Your task to perform on an android device: turn off smart reply in the gmail app Image 0: 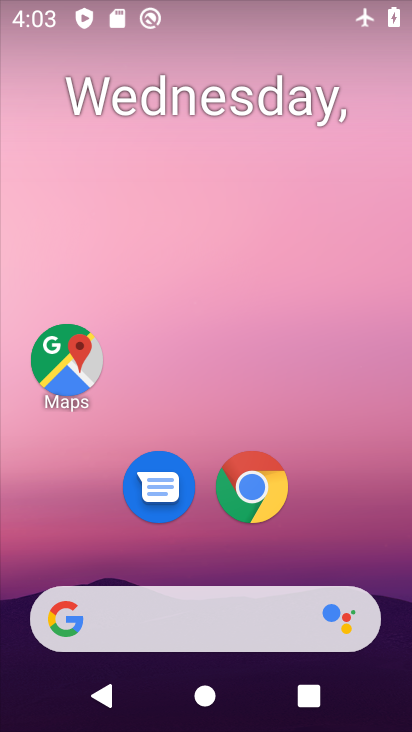
Step 0: press home button
Your task to perform on an android device: turn off smart reply in the gmail app Image 1: 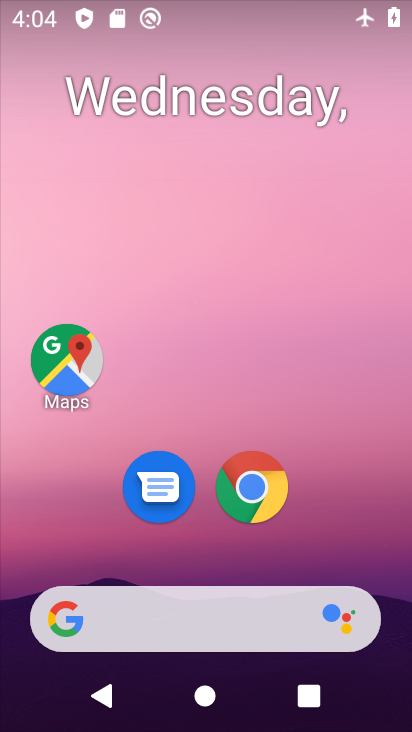
Step 1: press back button
Your task to perform on an android device: turn off smart reply in the gmail app Image 2: 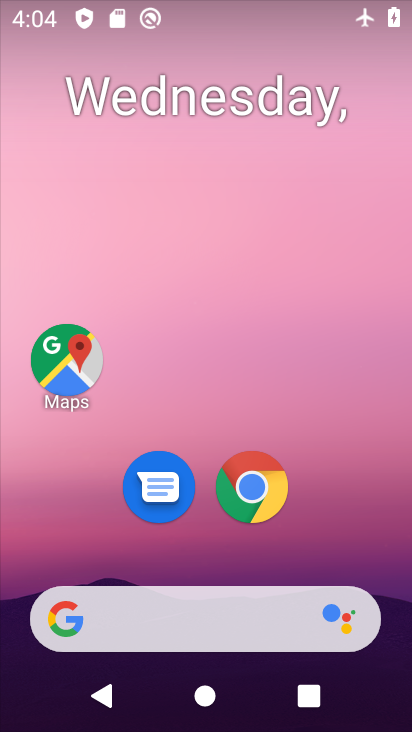
Step 2: drag from (205, 544) to (241, 35)
Your task to perform on an android device: turn off smart reply in the gmail app Image 3: 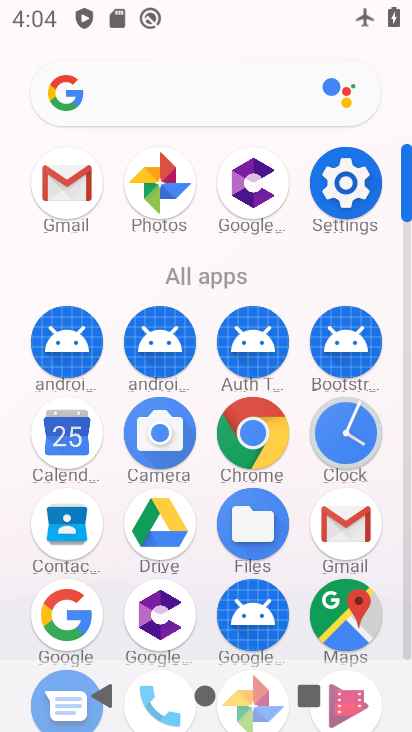
Step 3: click (64, 170)
Your task to perform on an android device: turn off smart reply in the gmail app Image 4: 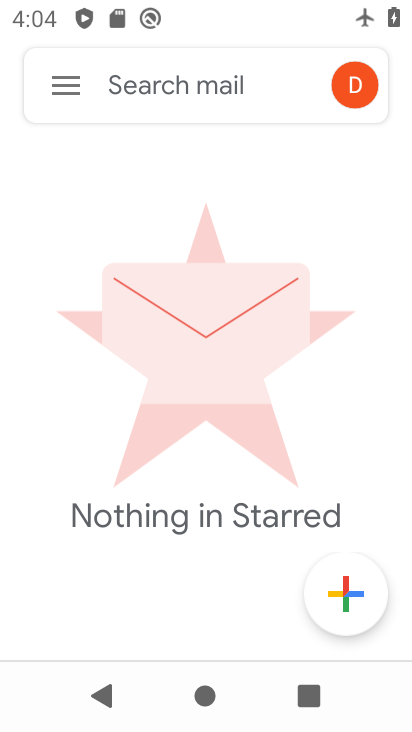
Step 4: click (62, 79)
Your task to perform on an android device: turn off smart reply in the gmail app Image 5: 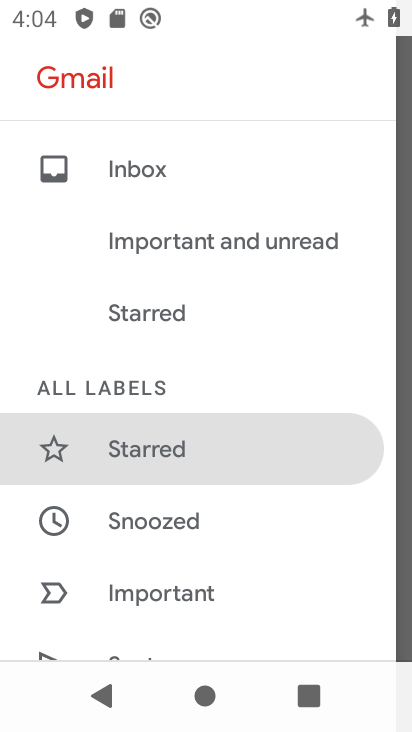
Step 5: drag from (125, 624) to (115, 189)
Your task to perform on an android device: turn off smart reply in the gmail app Image 6: 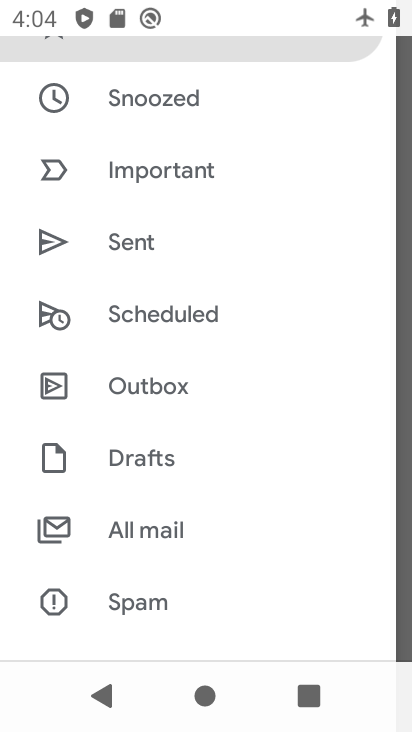
Step 6: drag from (179, 572) to (170, 134)
Your task to perform on an android device: turn off smart reply in the gmail app Image 7: 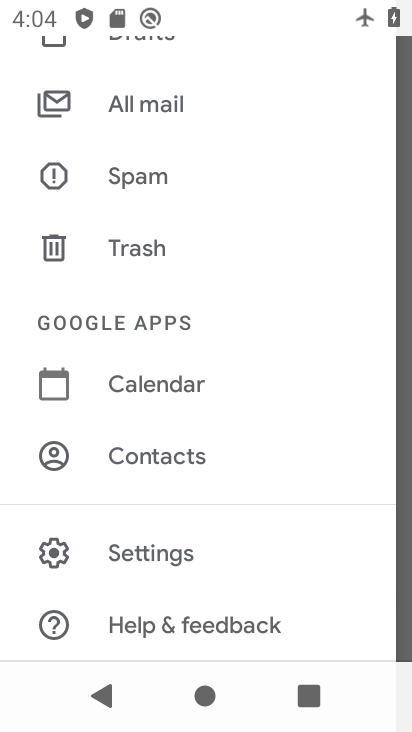
Step 7: click (170, 553)
Your task to perform on an android device: turn off smart reply in the gmail app Image 8: 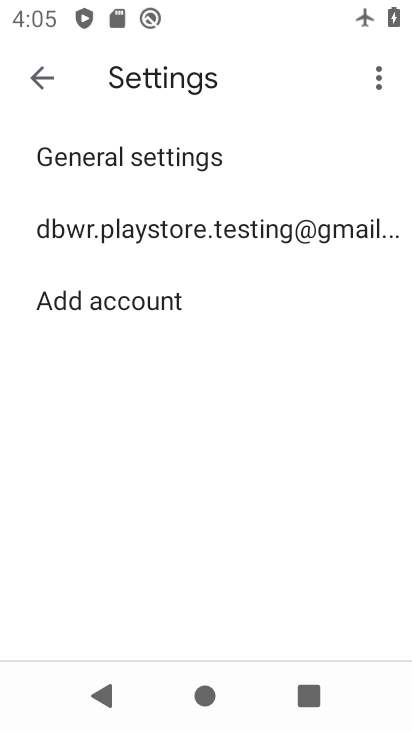
Step 8: click (221, 229)
Your task to perform on an android device: turn off smart reply in the gmail app Image 9: 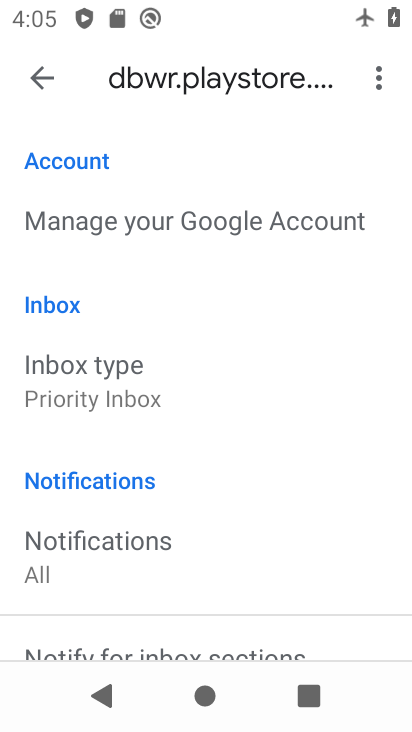
Step 9: drag from (191, 606) to (226, 128)
Your task to perform on an android device: turn off smart reply in the gmail app Image 10: 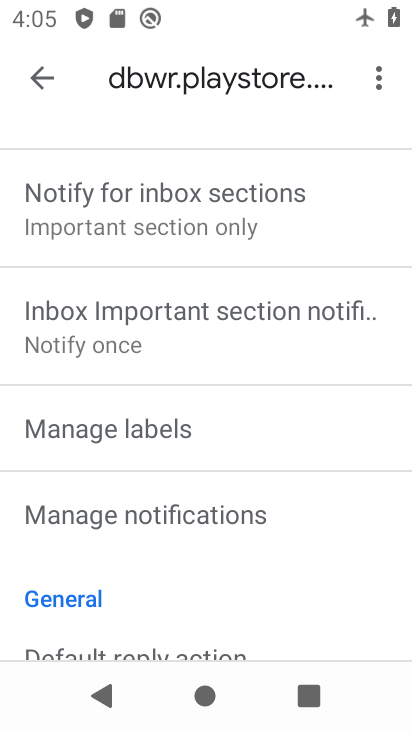
Step 10: drag from (221, 630) to (222, 182)
Your task to perform on an android device: turn off smart reply in the gmail app Image 11: 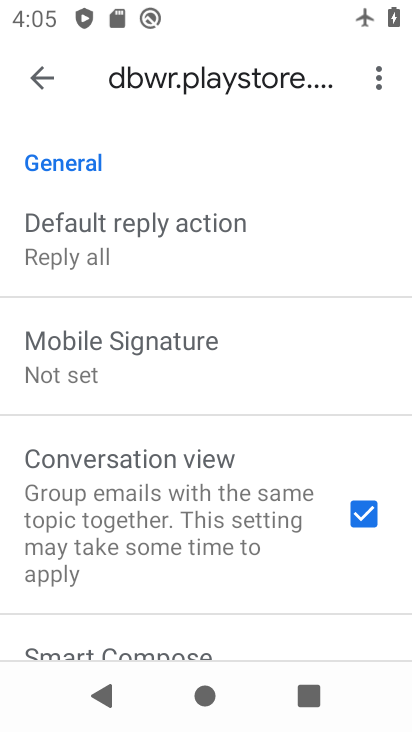
Step 11: drag from (206, 629) to (211, 182)
Your task to perform on an android device: turn off smart reply in the gmail app Image 12: 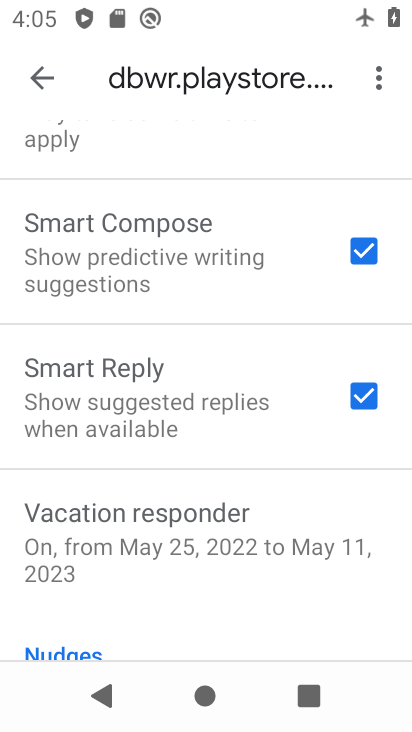
Step 12: click (363, 395)
Your task to perform on an android device: turn off smart reply in the gmail app Image 13: 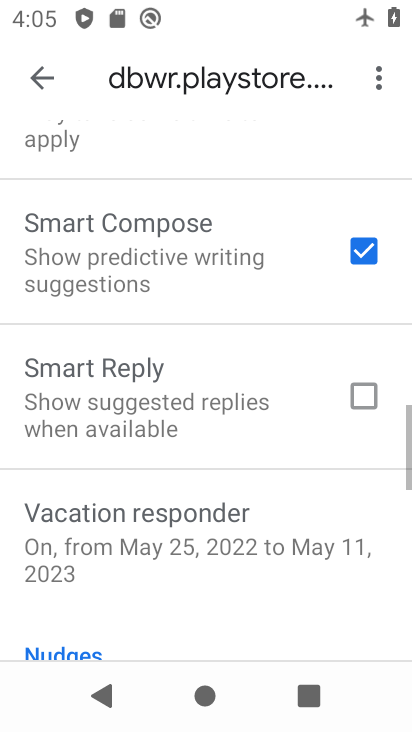
Step 13: task complete